Your task to perform on an android device: Open wifi settings Image 0: 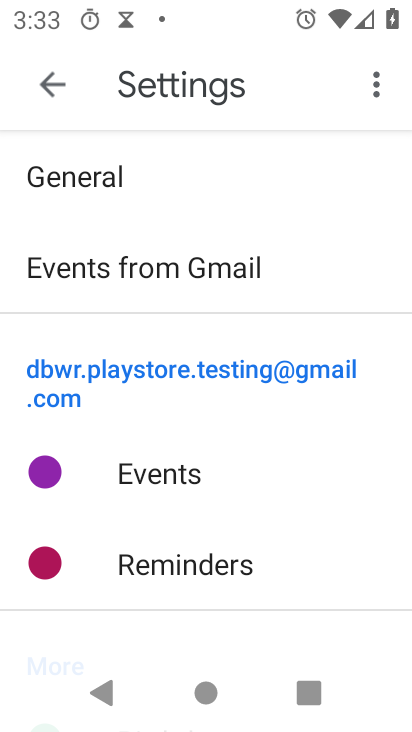
Step 0: press back button
Your task to perform on an android device: Open wifi settings Image 1: 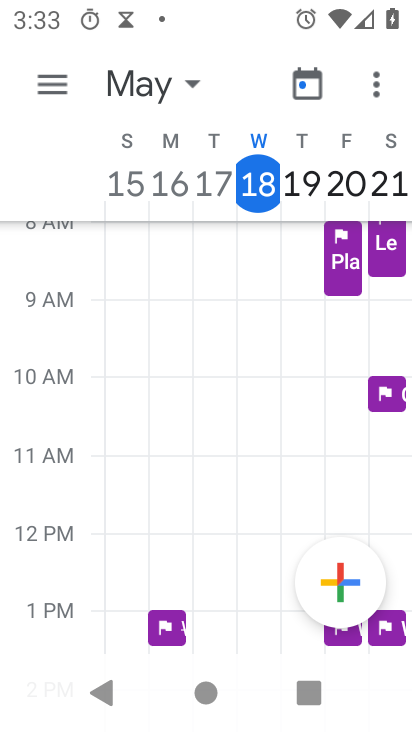
Step 1: press home button
Your task to perform on an android device: Open wifi settings Image 2: 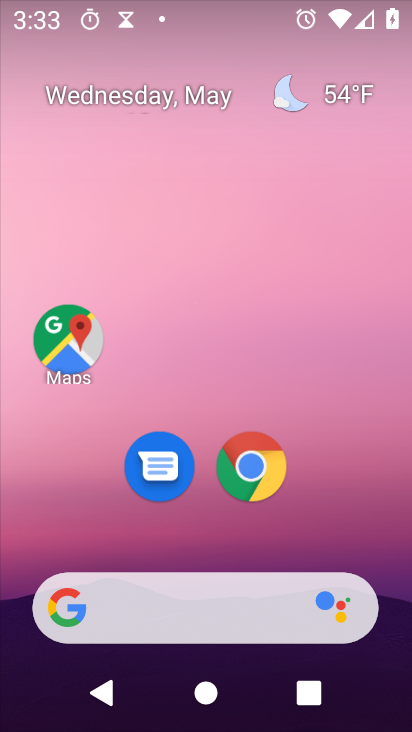
Step 2: drag from (349, 519) to (290, 49)
Your task to perform on an android device: Open wifi settings Image 3: 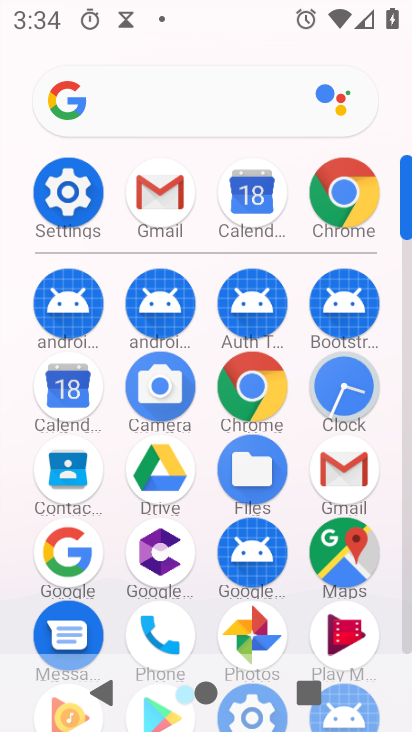
Step 3: click (78, 203)
Your task to perform on an android device: Open wifi settings Image 4: 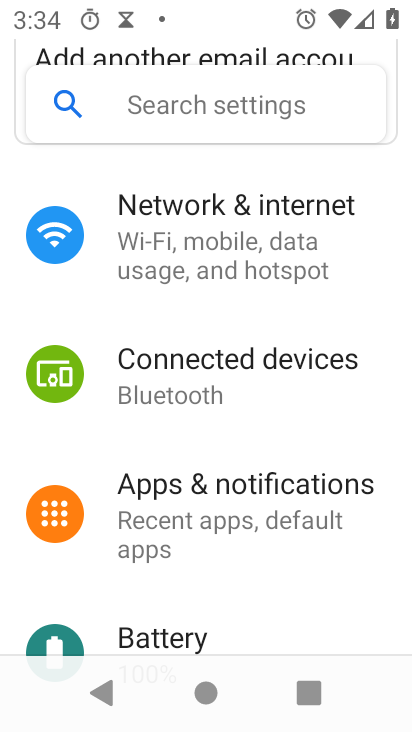
Step 4: click (272, 244)
Your task to perform on an android device: Open wifi settings Image 5: 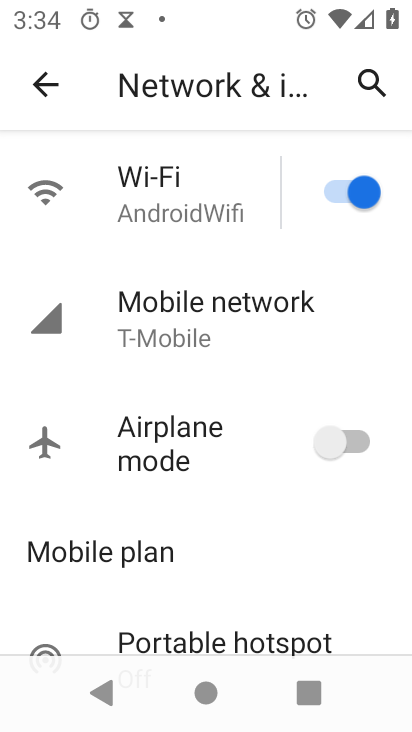
Step 5: click (223, 207)
Your task to perform on an android device: Open wifi settings Image 6: 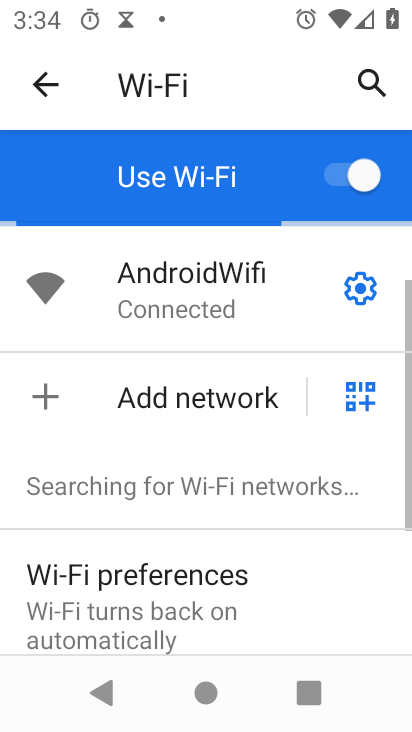
Step 6: task complete